Your task to perform on an android device: turn off priority inbox in the gmail app Image 0: 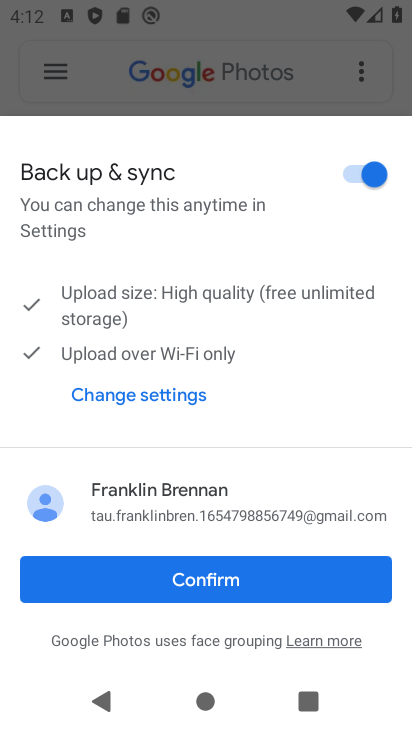
Step 0: click (368, 583)
Your task to perform on an android device: turn off priority inbox in the gmail app Image 1: 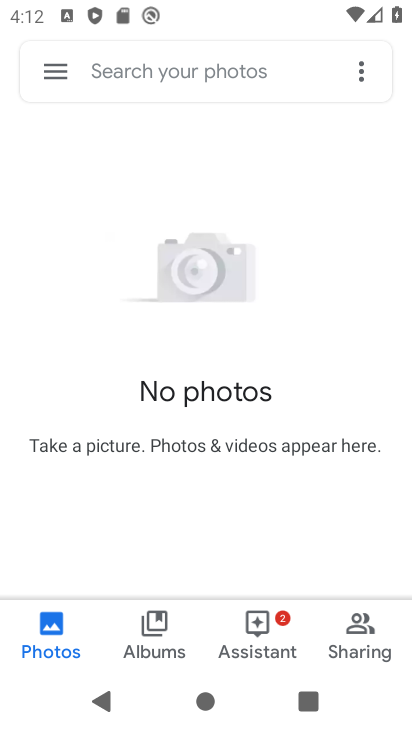
Step 1: press home button
Your task to perform on an android device: turn off priority inbox in the gmail app Image 2: 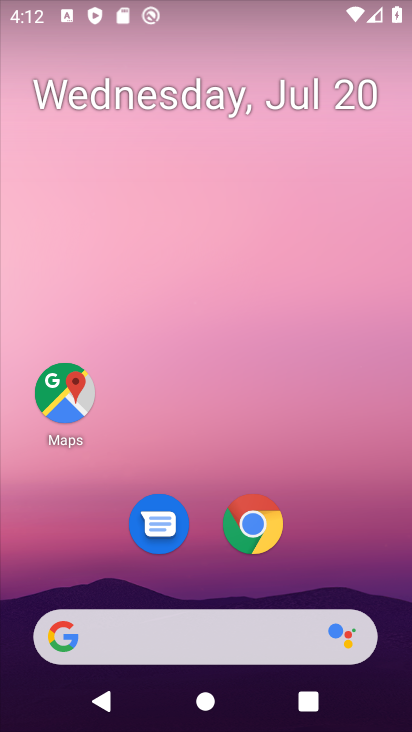
Step 2: drag from (319, 524) to (296, 74)
Your task to perform on an android device: turn off priority inbox in the gmail app Image 3: 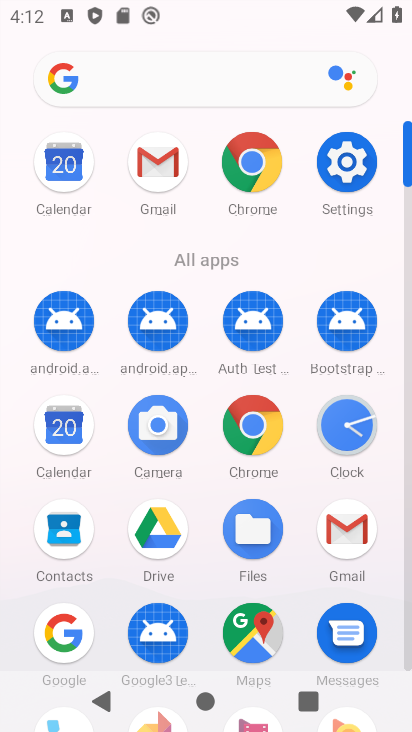
Step 3: click (163, 172)
Your task to perform on an android device: turn off priority inbox in the gmail app Image 4: 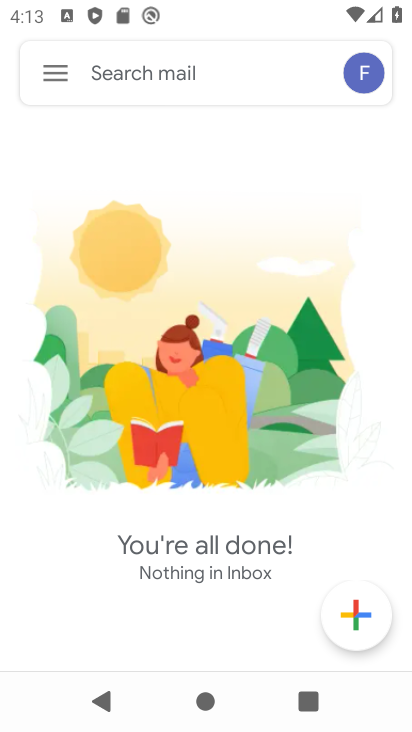
Step 4: click (57, 75)
Your task to perform on an android device: turn off priority inbox in the gmail app Image 5: 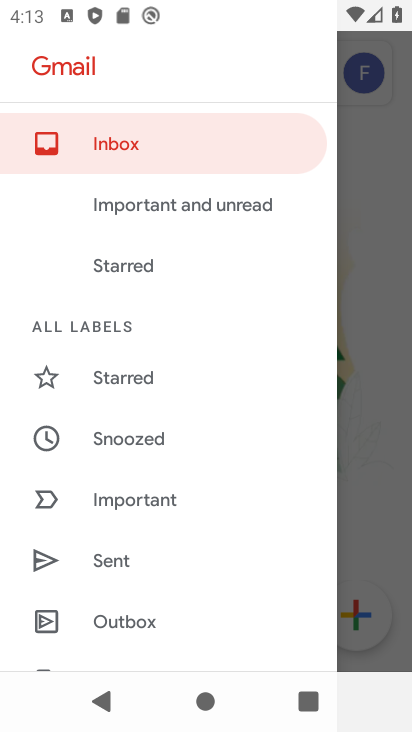
Step 5: drag from (176, 475) to (212, 119)
Your task to perform on an android device: turn off priority inbox in the gmail app Image 6: 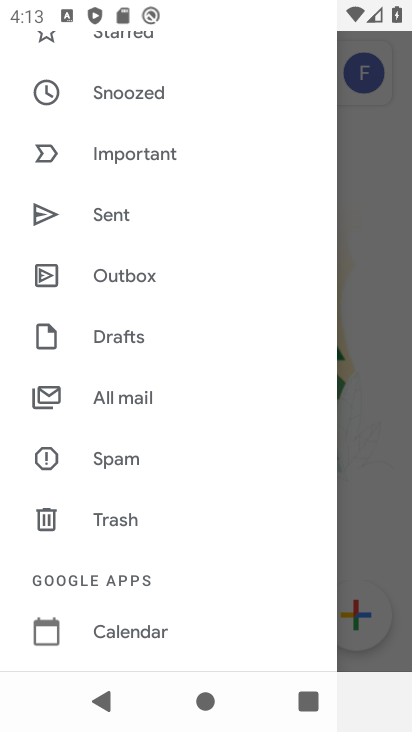
Step 6: drag from (155, 524) to (182, 163)
Your task to perform on an android device: turn off priority inbox in the gmail app Image 7: 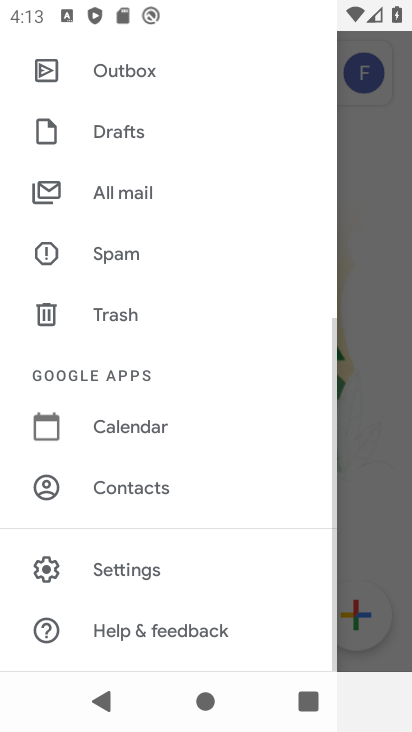
Step 7: click (125, 561)
Your task to perform on an android device: turn off priority inbox in the gmail app Image 8: 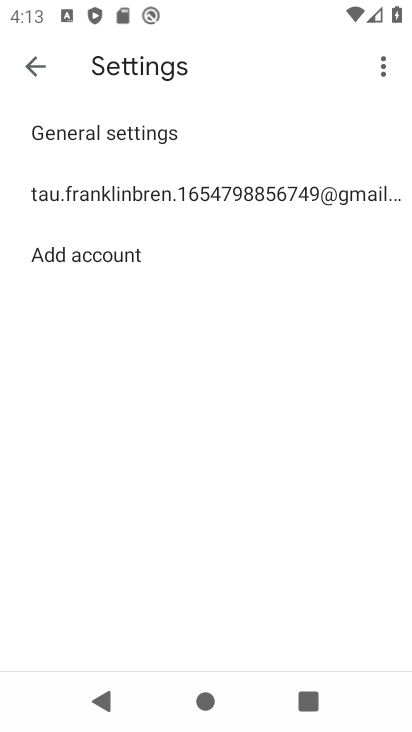
Step 8: click (329, 191)
Your task to perform on an android device: turn off priority inbox in the gmail app Image 9: 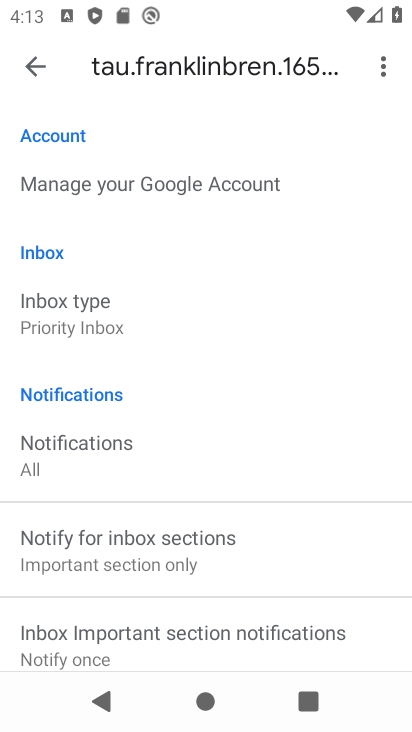
Step 9: click (84, 309)
Your task to perform on an android device: turn off priority inbox in the gmail app Image 10: 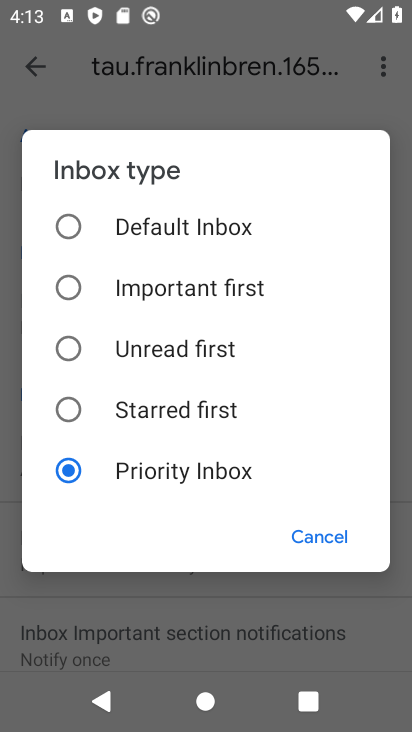
Step 10: click (71, 223)
Your task to perform on an android device: turn off priority inbox in the gmail app Image 11: 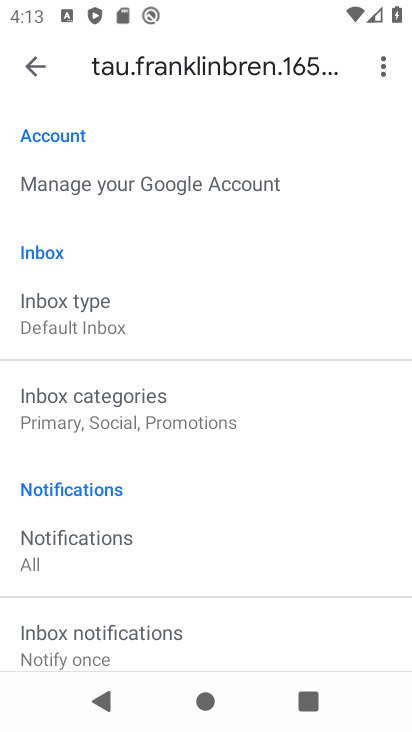
Step 11: task complete